Your task to perform on an android device: Search for pizza restaurants on Maps Image 0: 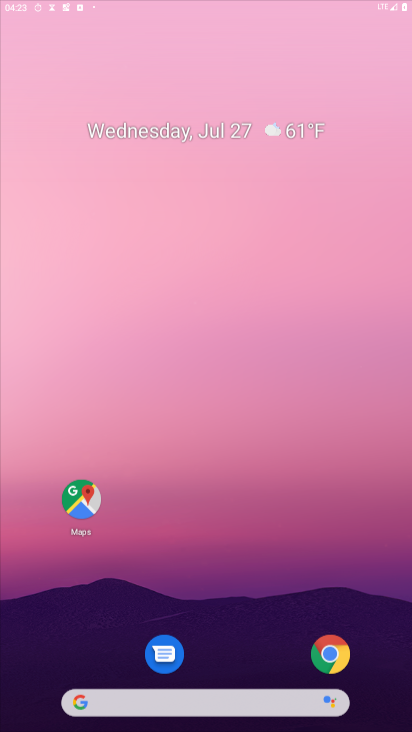
Step 0: drag from (337, 436) to (333, 20)
Your task to perform on an android device: Search for pizza restaurants on Maps Image 1: 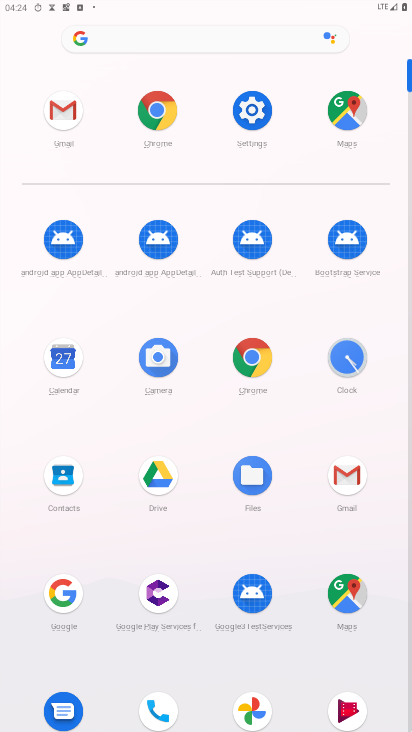
Step 1: click (355, 601)
Your task to perform on an android device: Search for pizza restaurants on Maps Image 2: 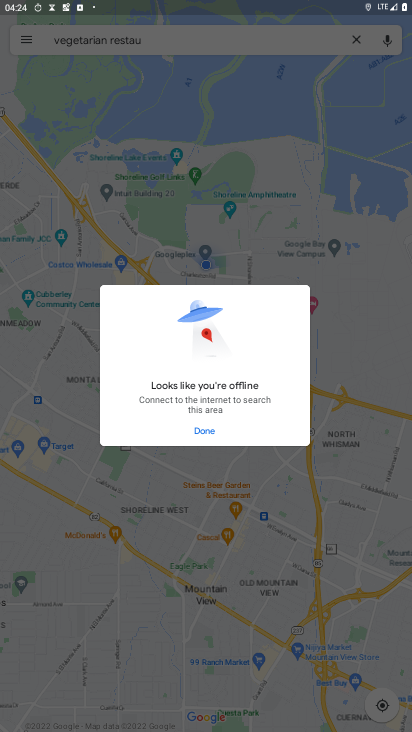
Step 2: press back button
Your task to perform on an android device: Search for pizza restaurants on Maps Image 3: 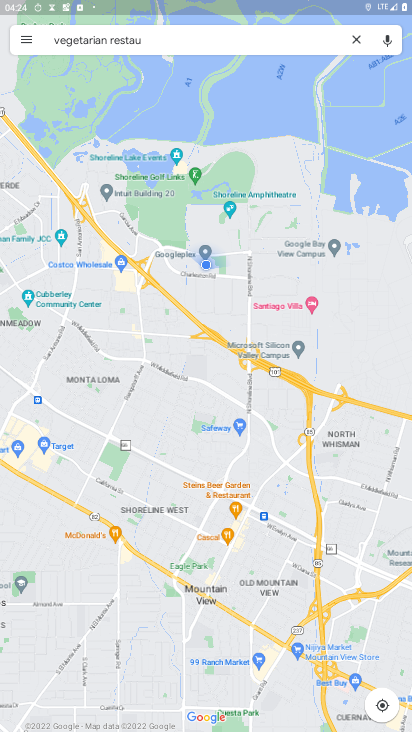
Step 3: click (282, 35)
Your task to perform on an android device: Search for pizza restaurants on Maps Image 4: 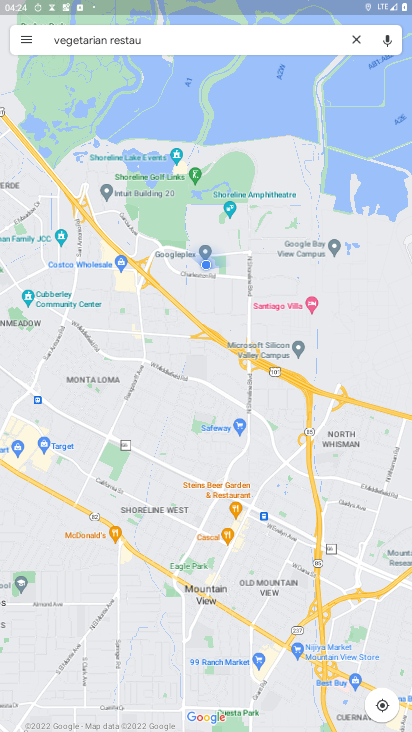
Step 4: click (282, 35)
Your task to perform on an android device: Search for pizza restaurants on Maps Image 5: 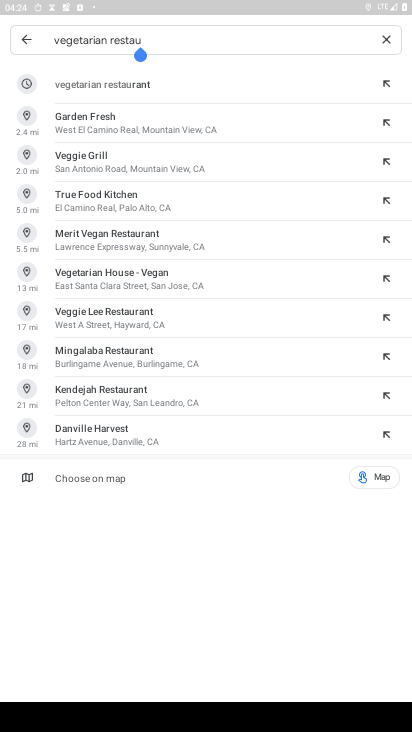
Step 5: click (395, 35)
Your task to perform on an android device: Search for pizza restaurants on Maps Image 6: 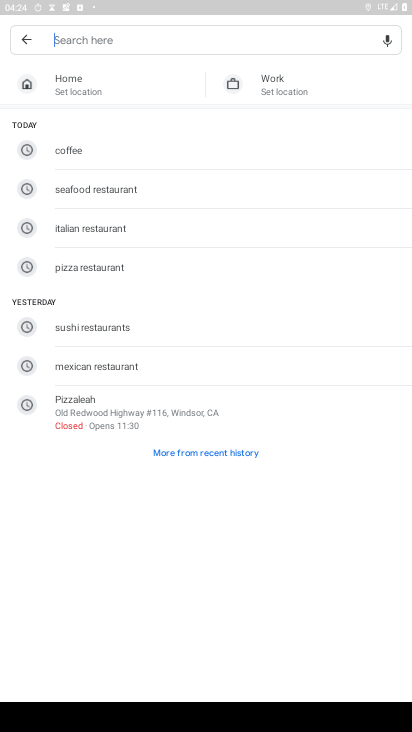
Step 6: click (111, 260)
Your task to perform on an android device: Search for pizza restaurants on Maps Image 7: 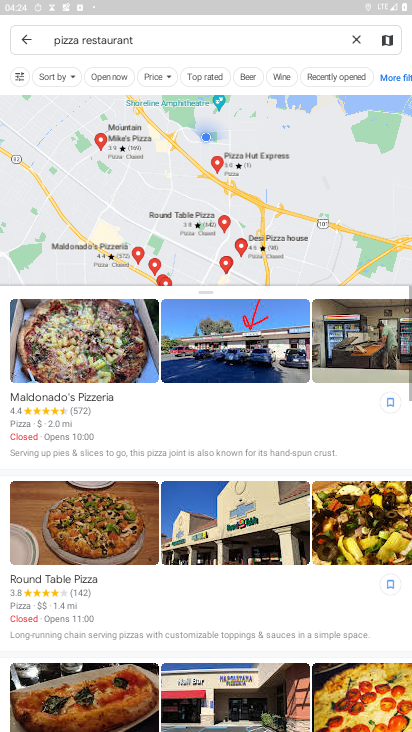
Step 7: task complete